Your task to perform on an android device: Open Wikipedia Image 0: 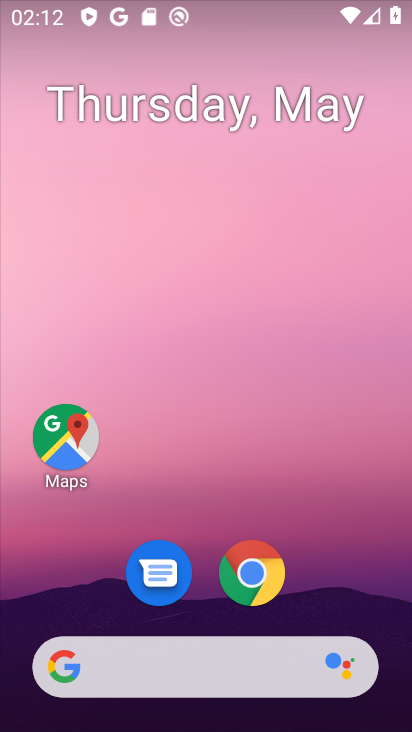
Step 0: click (244, 566)
Your task to perform on an android device: Open Wikipedia Image 1: 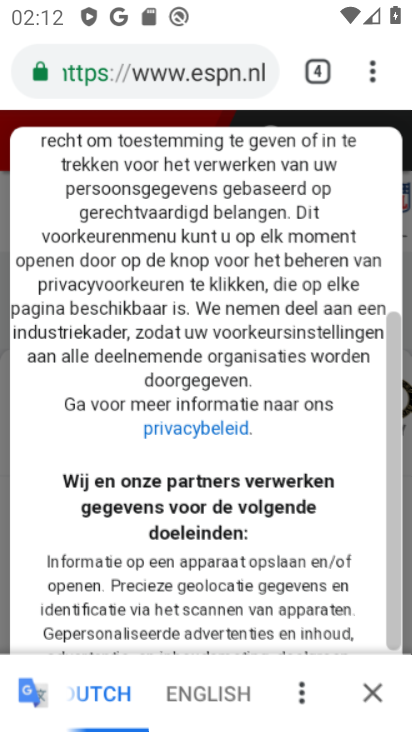
Step 1: click (380, 57)
Your task to perform on an android device: Open Wikipedia Image 2: 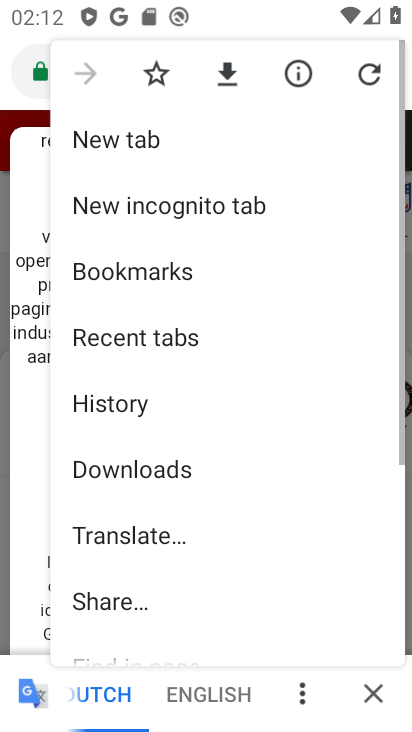
Step 2: click (98, 137)
Your task to perform on an android device: Open Wikipedia Image 3: 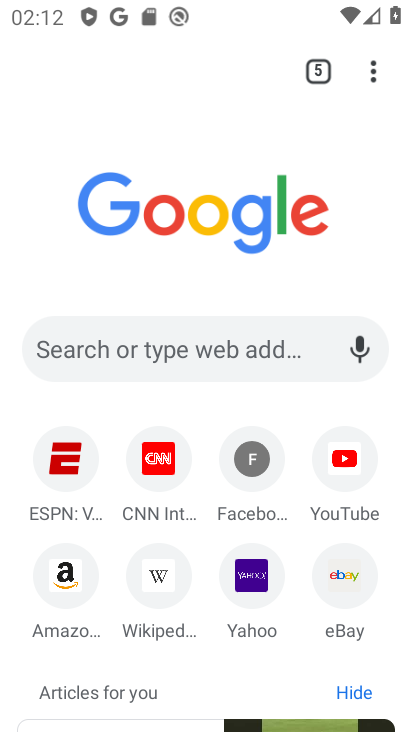
Step 3: click (141, 587)
Your task to perform on an android device: Open Wikipedia Image 4: 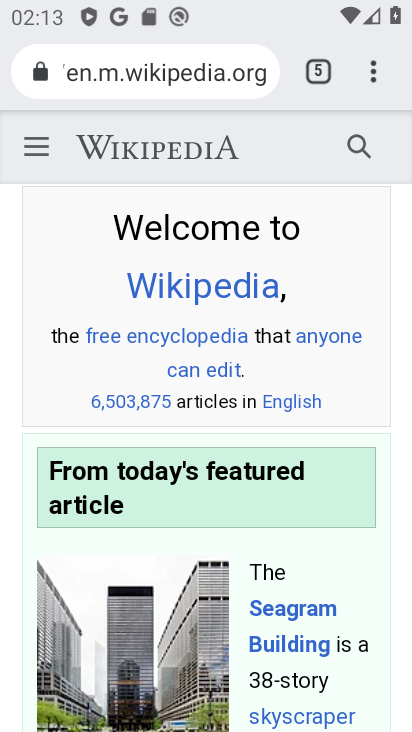
Step 4: task complete